Your task to perform on an android device: turn pop-ups off in chrome Image 0: 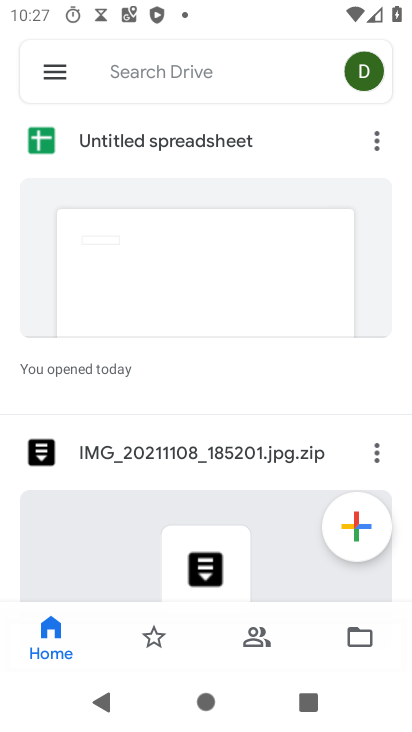
Step 0: press home button
Your task to perform on an android device: turn pop-ups off in chrome Image 1: 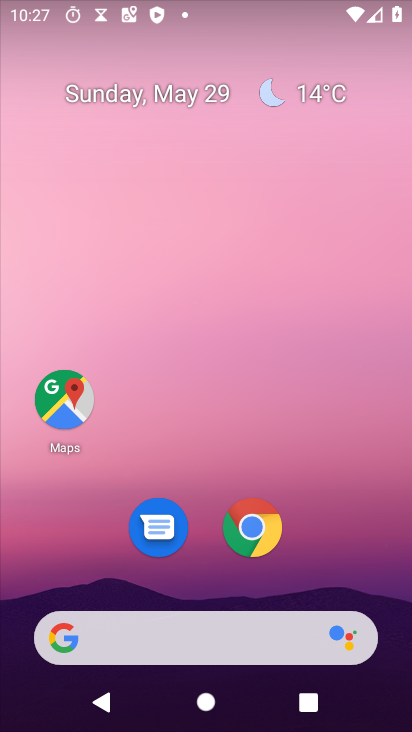
Step 1: click (255, 520)
Your task to perform on an android device: turn pop-ups off in chrome Image 2: 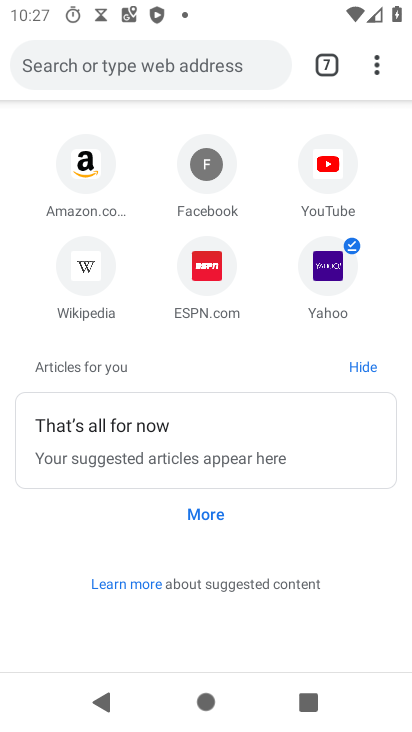
Step 2: drag from (378, 63) to (224, 542)
Your task to perform on an android device: turn pop-ups off in chrome Image 3: 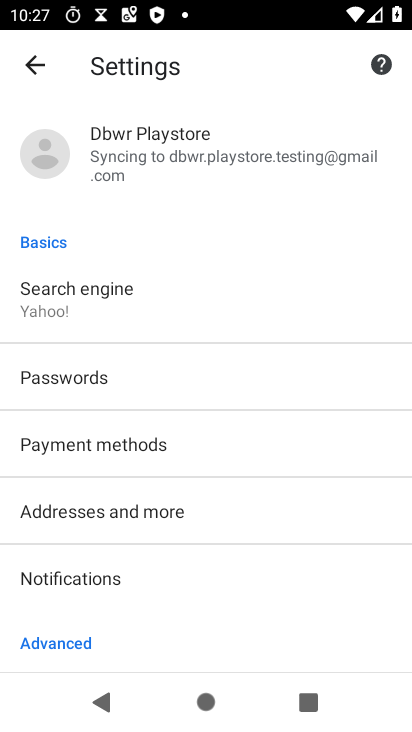
Step 3: drag from (181, 604) to (337, 122)
Your task to perform on an android device: turn pop-ups off in chrome Image 4: 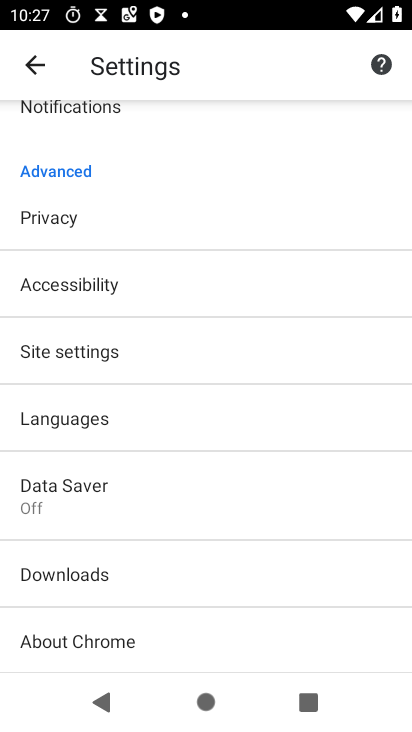
Step 4: click (95, 351)
Your task to perform on an android device: turn pop-ups off in chrome Image 5: 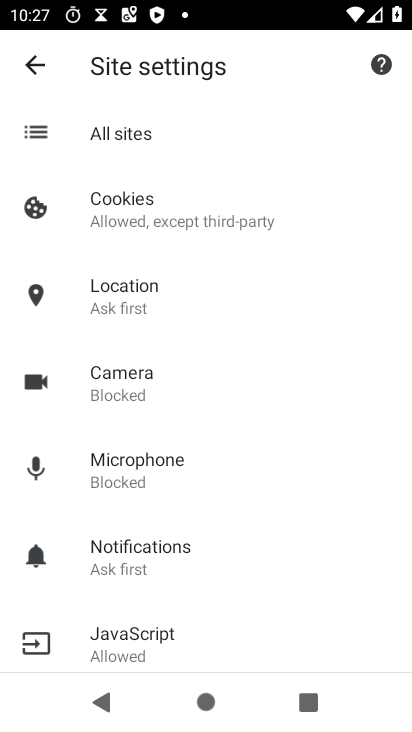
Step 5: drag from (222, 582) to (340, 141)
Your task to perform on an android device: turn pop-ups off in chrome Image 6: 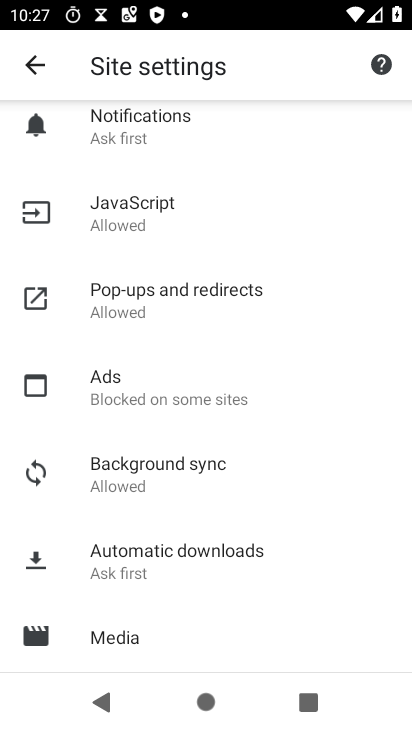
Step 6: click (171, 293)
Your task to perform on an android device: turn pop-ups off in chrome Image 7: 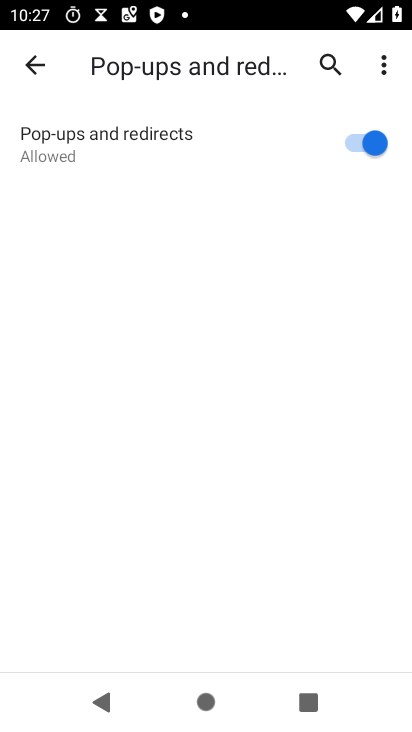
Step 7: click (351, 138)
Your task to perform on an android device: turn pop-ups off in chrome Image 8: 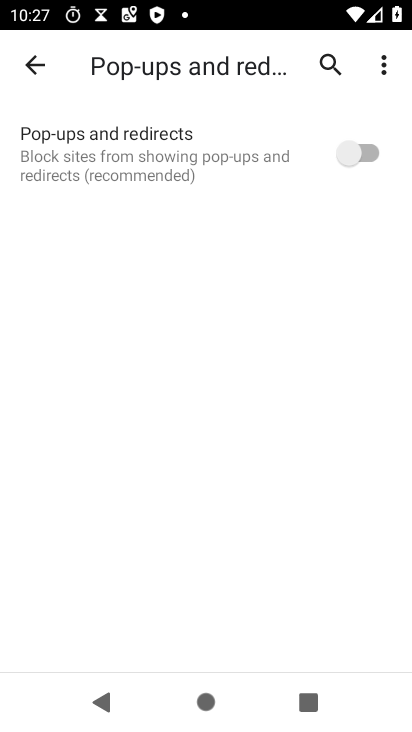
Step 8: task complete